Your task to perform on an android device: set default search engine in the chrome app Image 0: 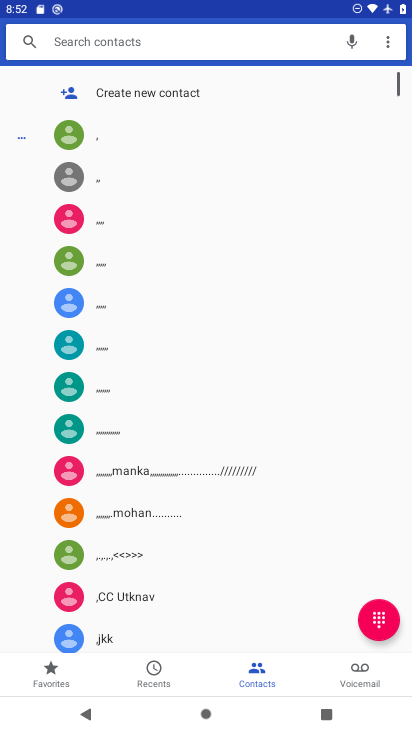
Step 0: press home button
Your task to perform on an android device: set default search engine in the chrome app Image 1: 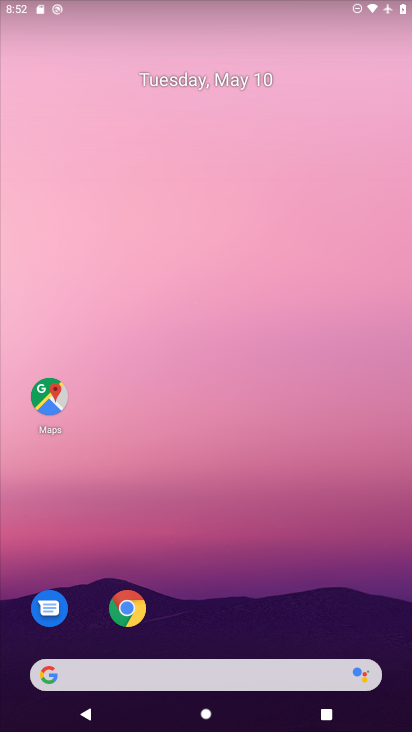
Step 1: drag from (201, 580) to (257, 237)
Your task to perform on an android device: set default search engine in the chrome app Image 2: 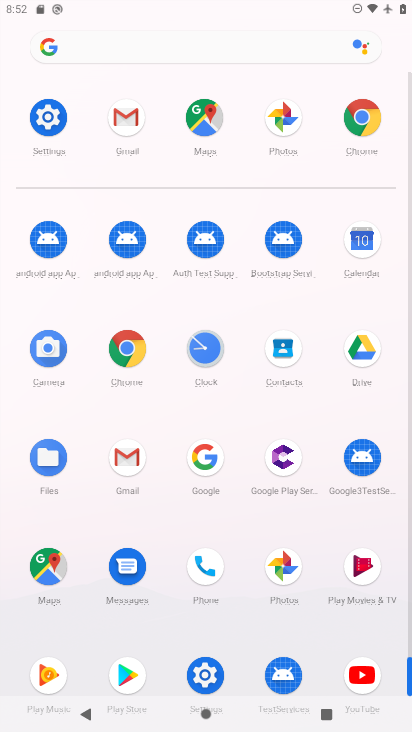
Step 2: click (129, 347)
Your task to perform on an android device: set default search engine in the chrome app Image 3: 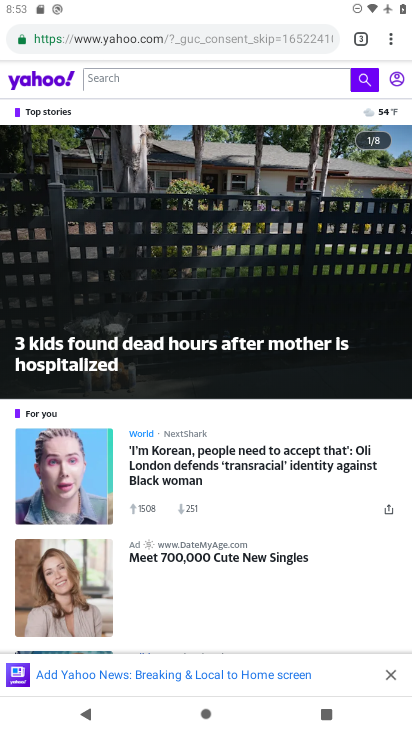
Step 3: click (384, 31)
Your task to perform on an android device: set default search engine in the chrome app Image 4: 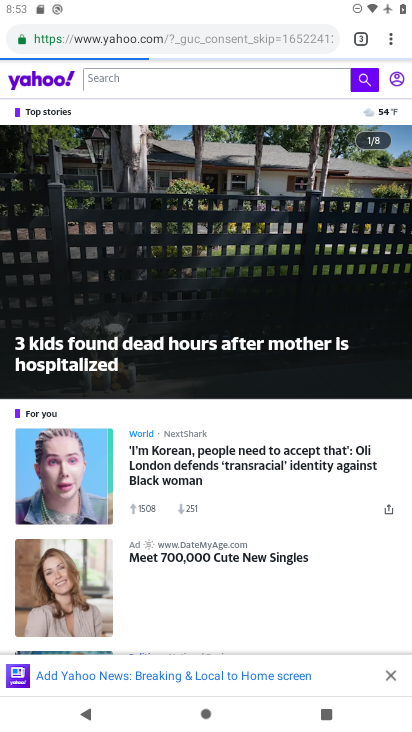
Step 4: click (380, 31)
Your task to perform on an android device: set default search engine in the chrome app Image 5: 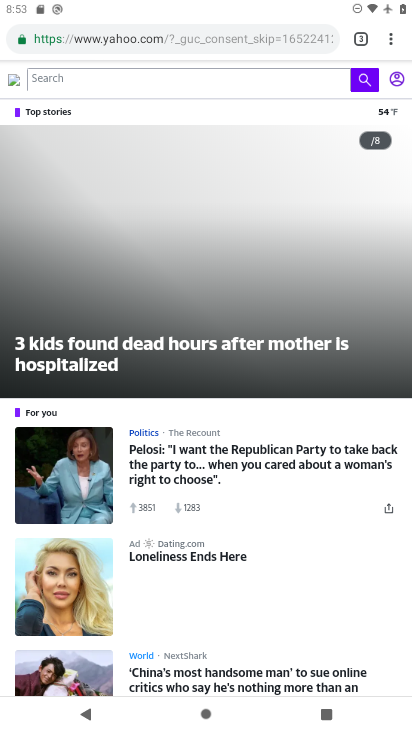
Step 5: click (373, 40)
Your task to perform on an android device: set default search engine in the chrome app Image 6: 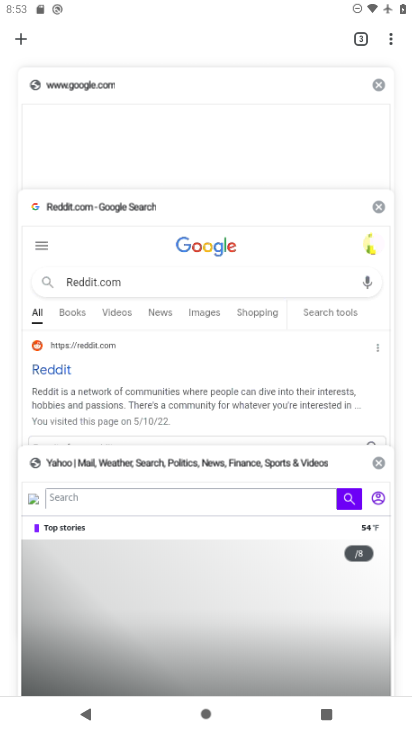
Step 6: click (375, 35)
Your task to perform on an android device: set default search engine in the chrome app Image 7: 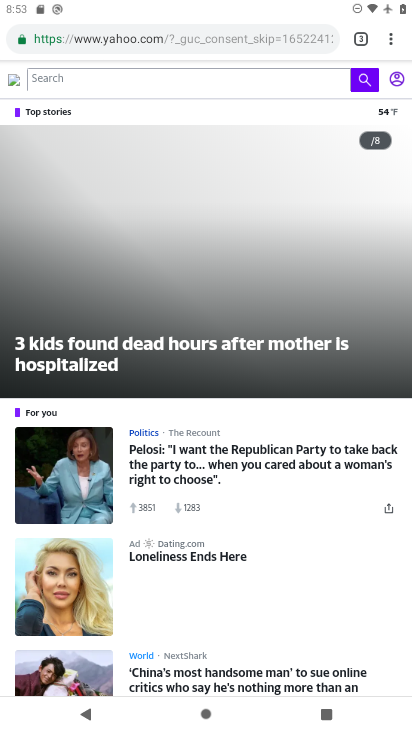
Step 7: click (375, 35)
Your task to perform on an android device: set default search engine in the chrome app Image 8: 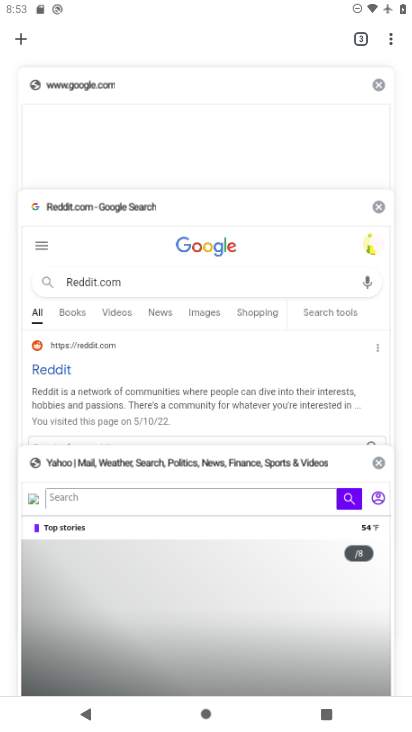
Step 8: click (382, 31)
Your task to perform on an android device: set default search engine in the chrome app Image 9: 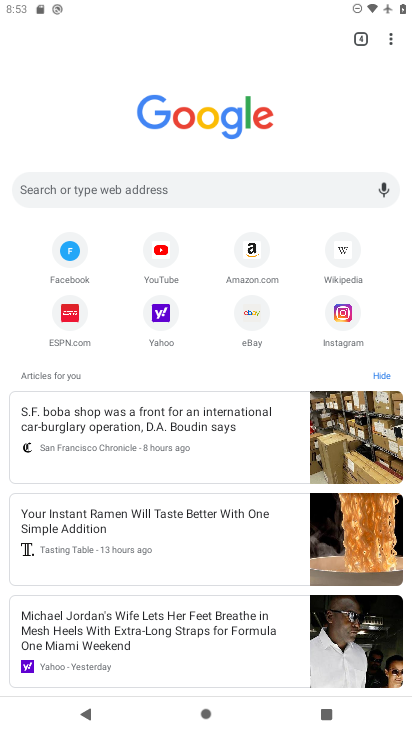
Step 9: click (374, 34)
Your task to perform on an android device: set default search engine in the chrome app Image 10: 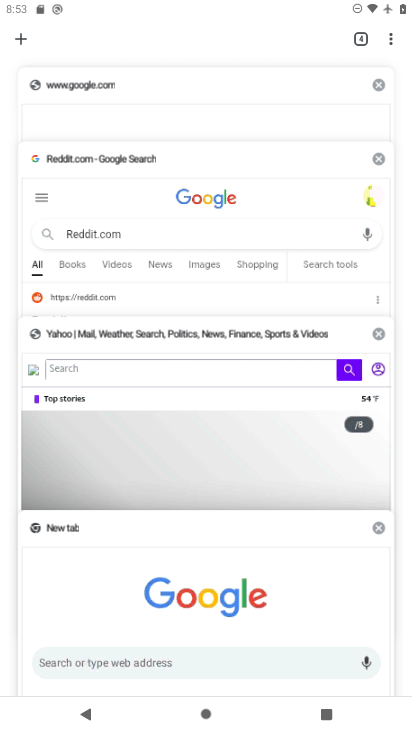
Step 10: click (380, 28)
Your task to perform on an android device: set default search engine in the chrome app Image 11: 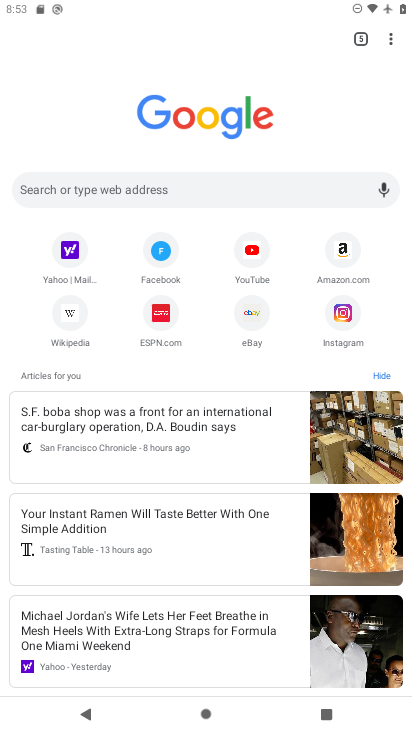
Step 11: click (380, 36)
Your task to perform on an android device: set default search engine in the chrome app Image 12: 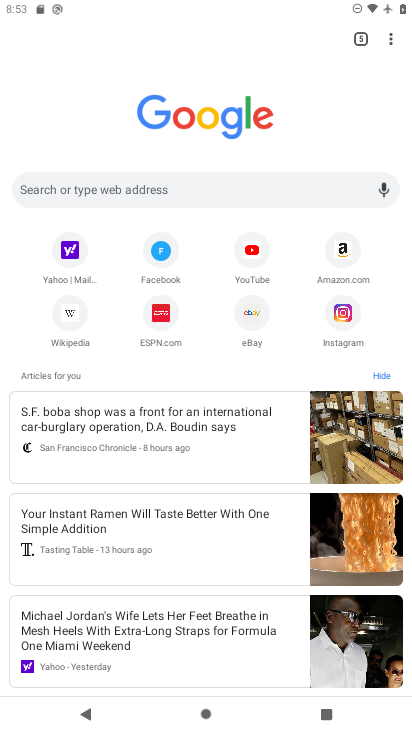
Step 12: click (366, 30)
Your task to perform on an android device: set default search engine in the chrome app Image 13: 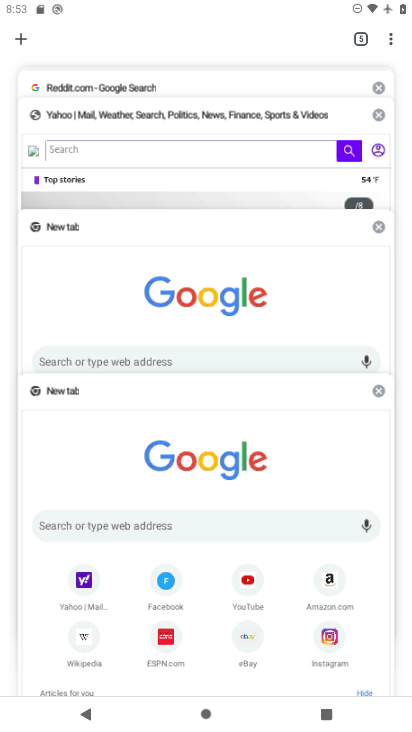
Step 13: click (374, 37)
Your task to perform on an android device: set default search engine in the chrome app Image 14: 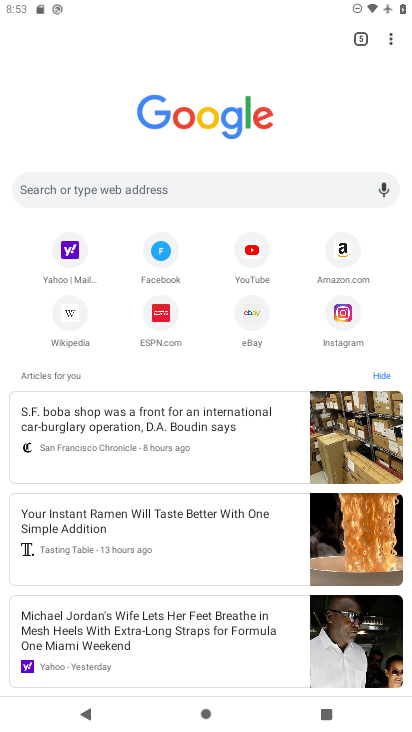
Step 14: click (377, 44)
Your task to perform on an android device: set default search engine in the chrome app Image 15: 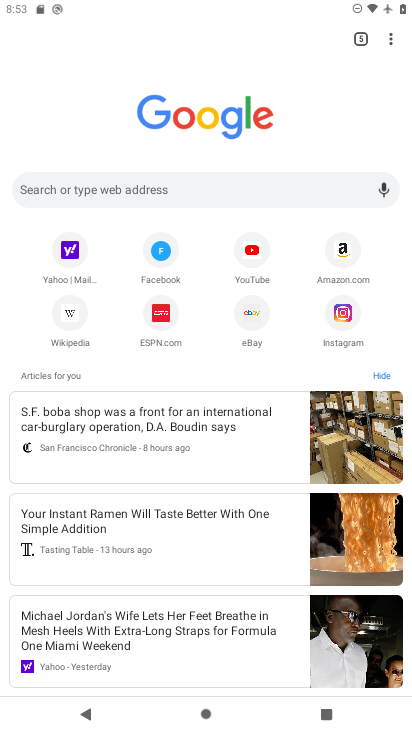
Step 15: click (377, 44)
Your task to perform on an android device: set default search engine in the chrome app Image 16: 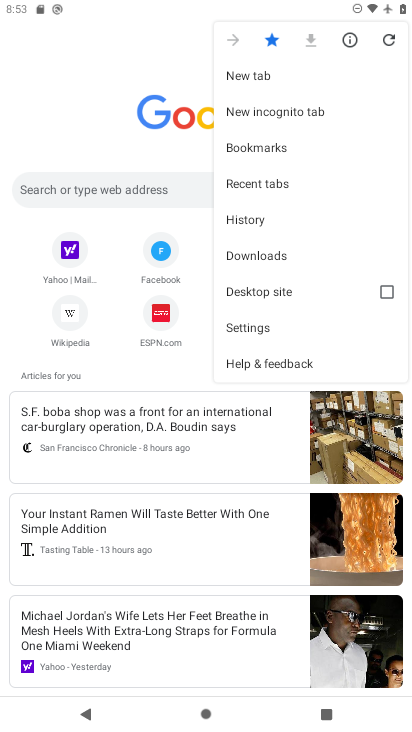
Step 16: click (267, 329)
Your task to perform on an android device: set default search engine in the chrome app Image 17: 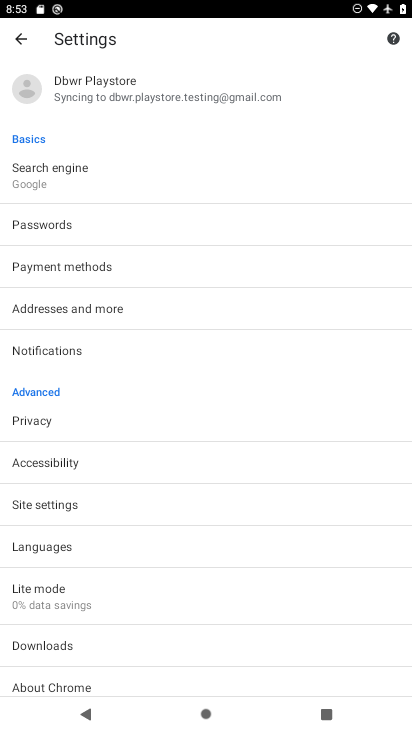
Step 17: drag from (70, 542) to (116, 470)
Your task to perform on an android device: set default search engine in the chrome app Image 18: 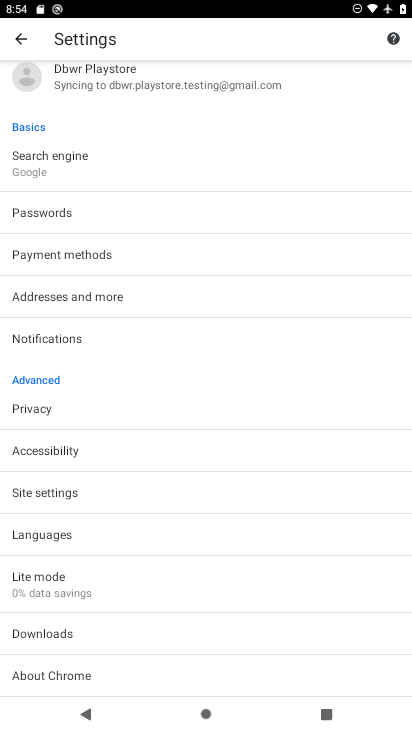
Step 18: click (104, 152)
Your task to perform on an android device: set default search engine in the chrome app Image 19: 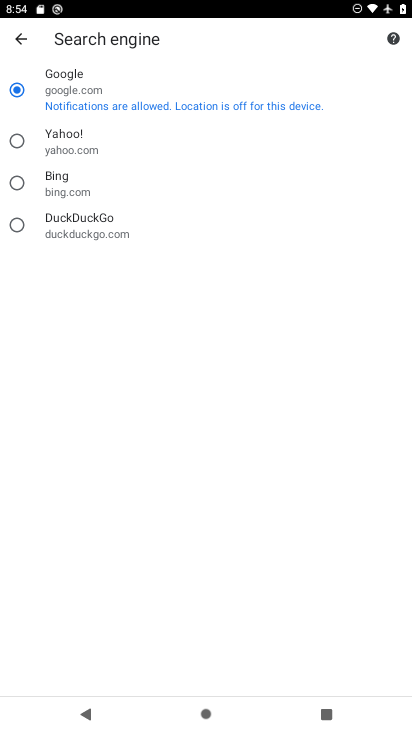
Step 19: click (57, 175)
Your task to perform on an android device: set default search engine in the chrome app Image 20: 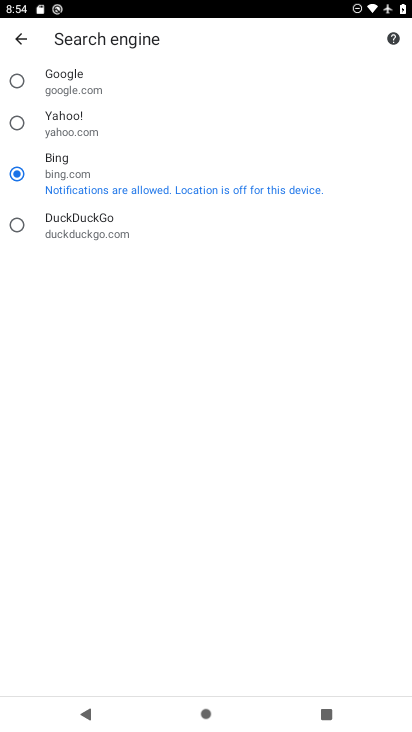
Step 20: task complete